Your task to perform on an android device: Open privacy settings Image 0: 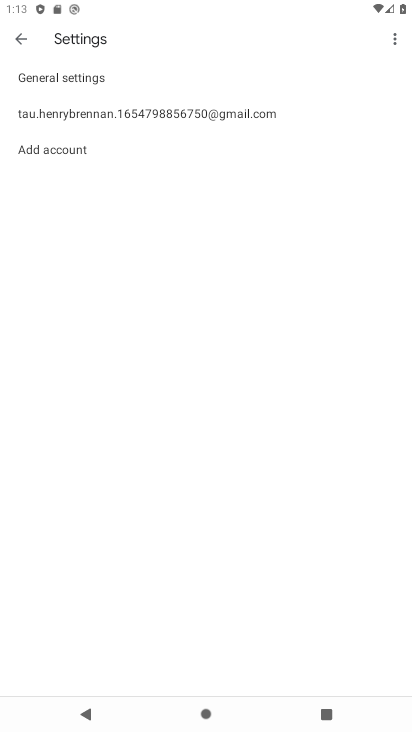
Step 0: press home button
Your task to perform on an android device: Open privacy settings Image 1: 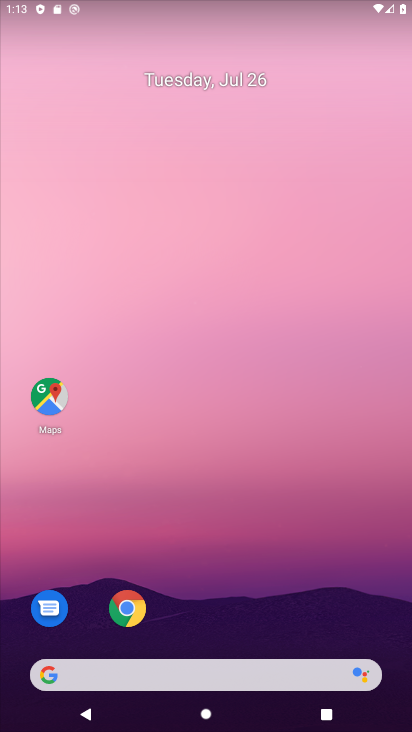
Step 1: drag from (279, 536) to (287, 149)
Your task to perform on an android device: Open privacy settings Image 2: 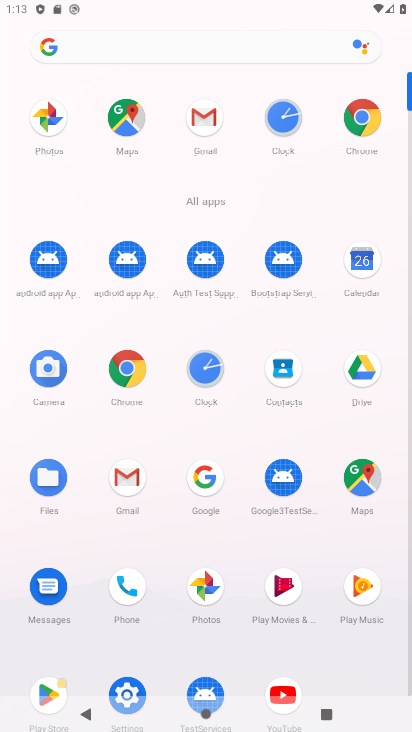
Step 2: click (119, 687)
Your task to perform on an android device: Open privacy settings Image 3: 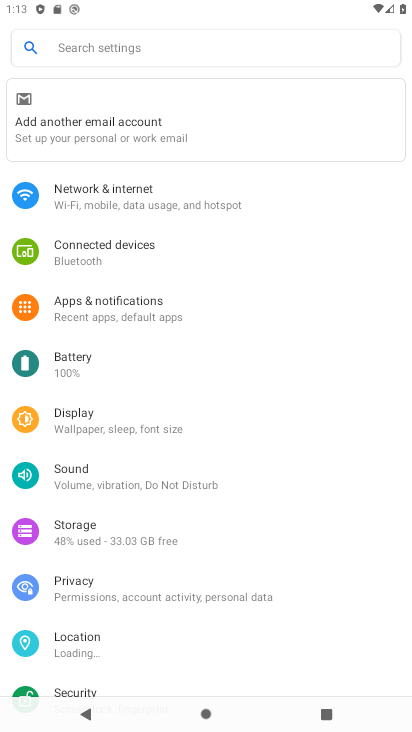
Step 3: click (104, 593)
Your task to perform on an android device: Open privacy settings Image 4: 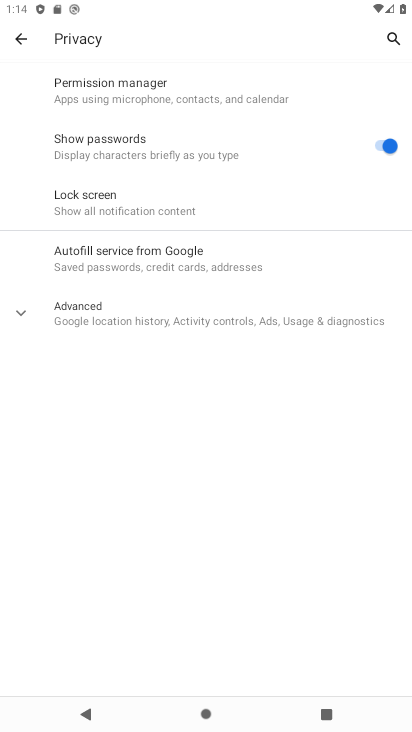
Step 4: task complete